Your task to perform on an android device: turn vacation reply on in the gmail app Image 0: 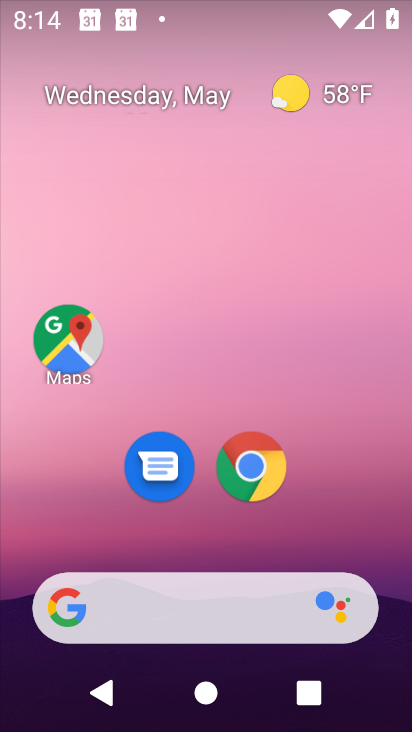
Step 0: press home button
Your task to perform on an android device: turn vacation reply on in the gmail app Image 1: 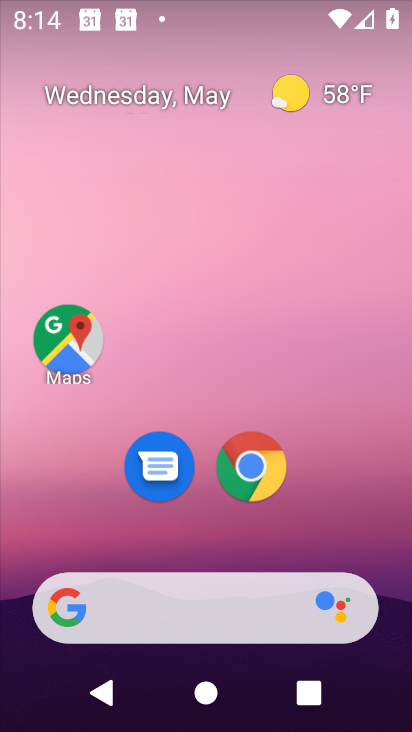
Step 1: drag from (198, 556) to (228, 39)
Your task to perform on an android device: turn vacation reply on in the gmail app Image 2: 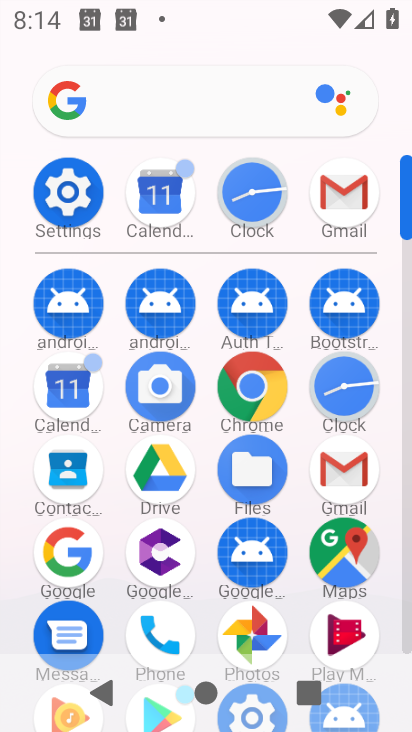
Step 2: click (335, 193)
Your task to perform on an android device: turn vacation reply on in the gmail app Image 3: 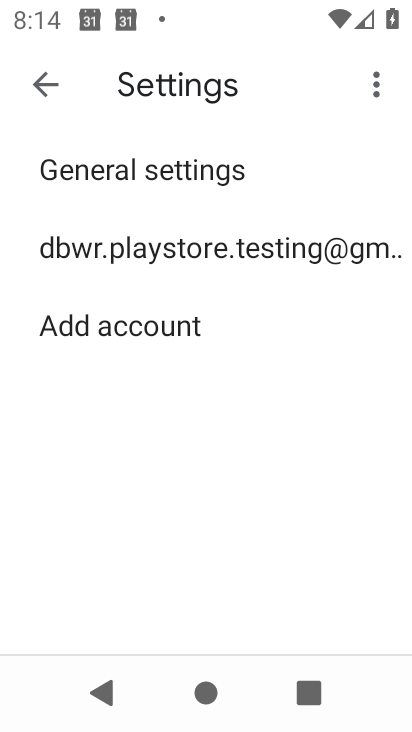
Step 3: click (103, 239)
Your task to perform on an android device: turn vacation reply on in the gmail app Image 4: 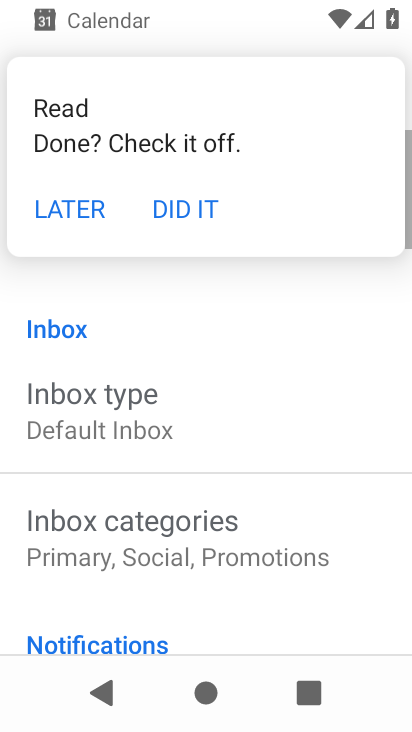
Step 4: drag from (111, 547) to (128, 62)
Your task to perform on an android device: turn vacation reply on in the gmail app Image 5: 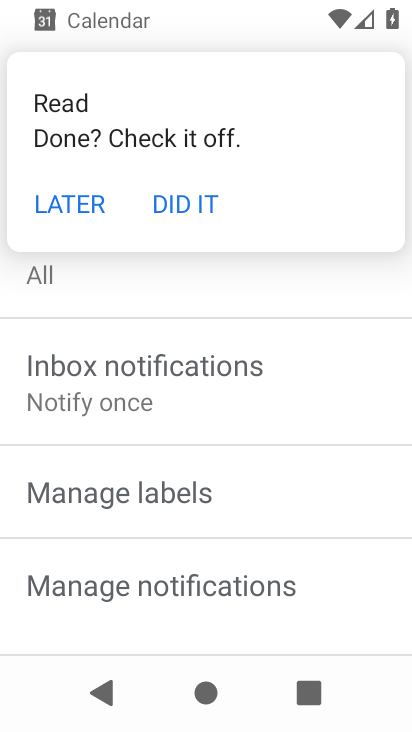
Step 5: click (85, 207)
Your task to perform on an android device: turn vacation reply on in the gmail app Image 6: 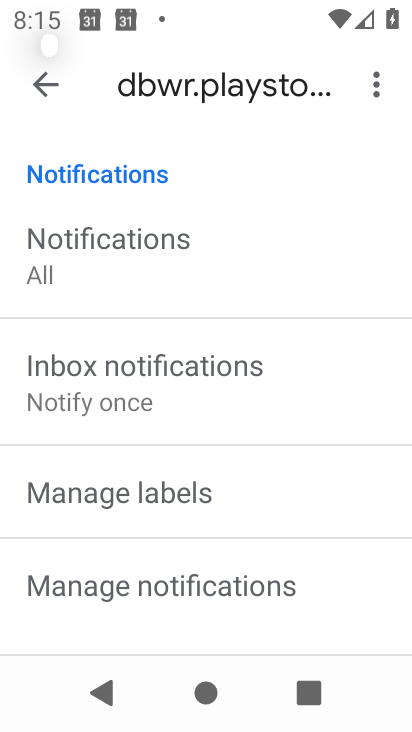
Step 6: drag from (178, 558) to (180, 42)
Your task to perform on an android device: turn vacation reply on in the gmail app Image 7: 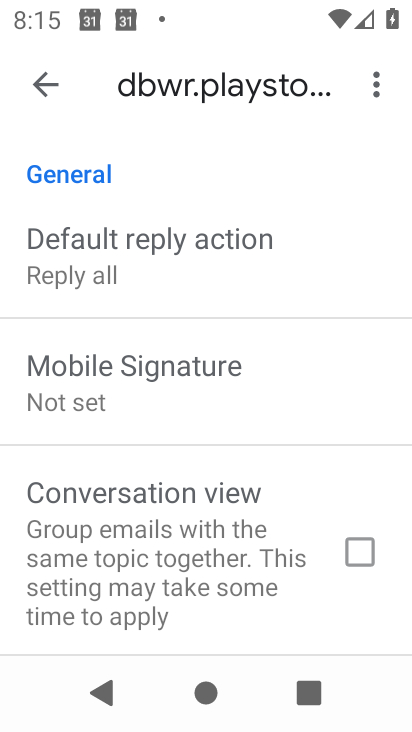
Step 7: drag from (153, 507) to (150, 63)
Your task to perform on an android device: turn vacation reply on in the gmail app Image 8: 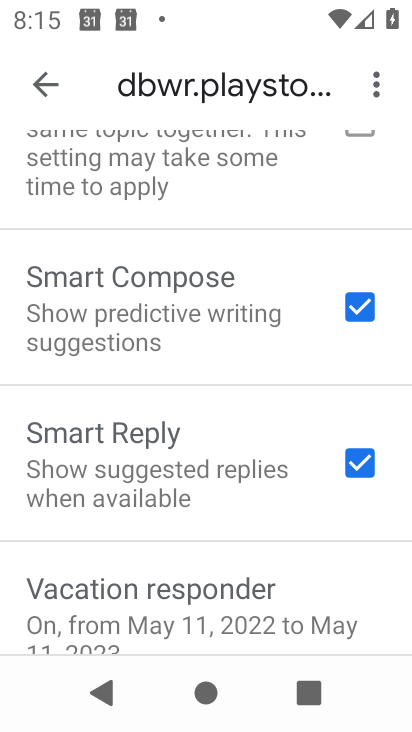
Step 8: click (161, 593)
Your task to perform on an android device: turn vacation reply on in the gmail app Image 9: 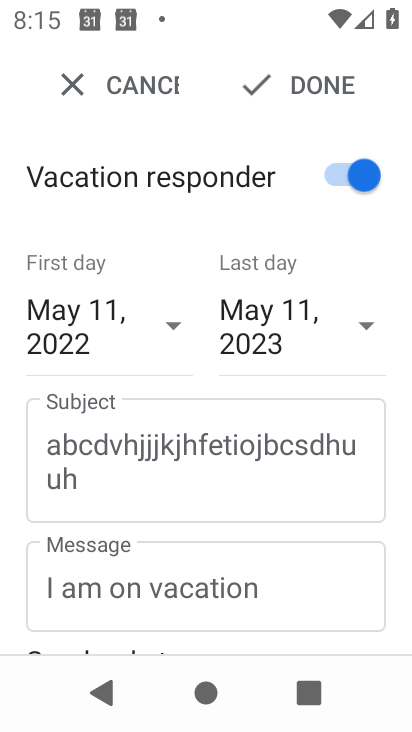
Step 9: task complete